Your task to perform on an android device: Play the last video I watched on Youtube Image 0: 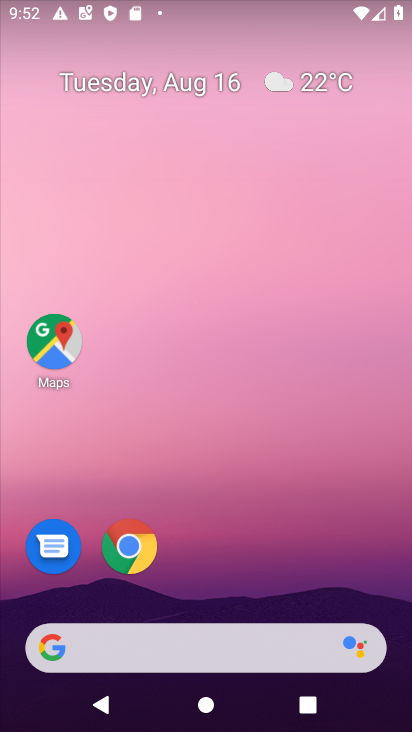
Step 0: drag from (228, 574) to (342, 0)
Your task to perform on an android device: Play the last video I watched on Youtube Image 1: 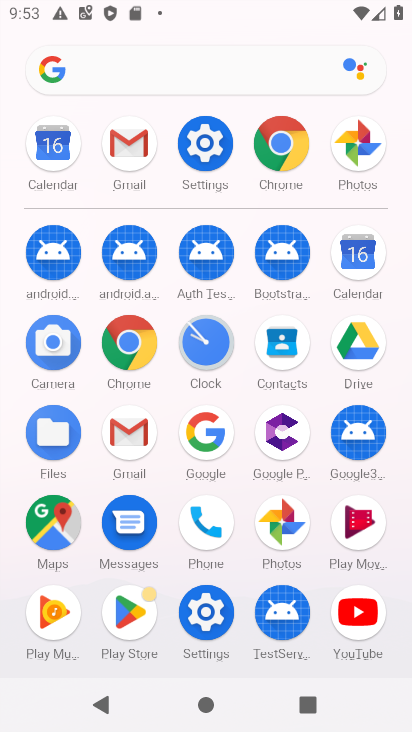
Step 1: click (359, 611)
Your task to perform on an android device: Play the last video I watched on Youtube Image 2: 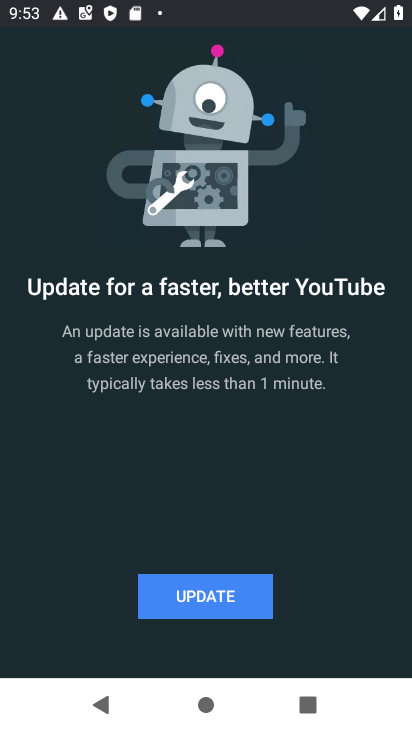
Step 2: click (253, 606)
Your task to perform on an android device: Play the last video I watched on Youtube Image 3: 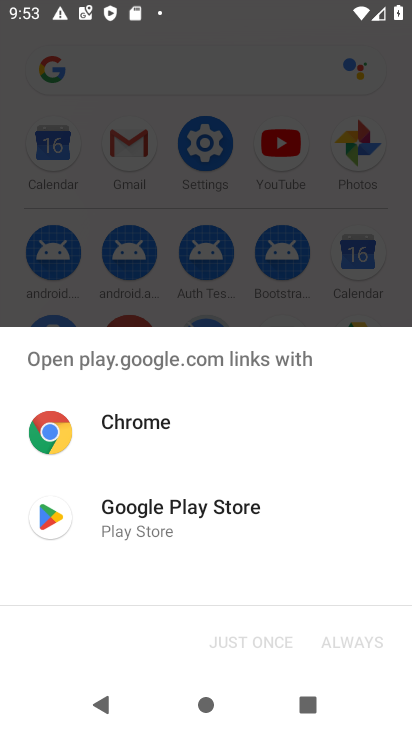
Step 3: click (188, 518)
Your task to perform on an android device: Play the last video I watched on Youtube Image 4: 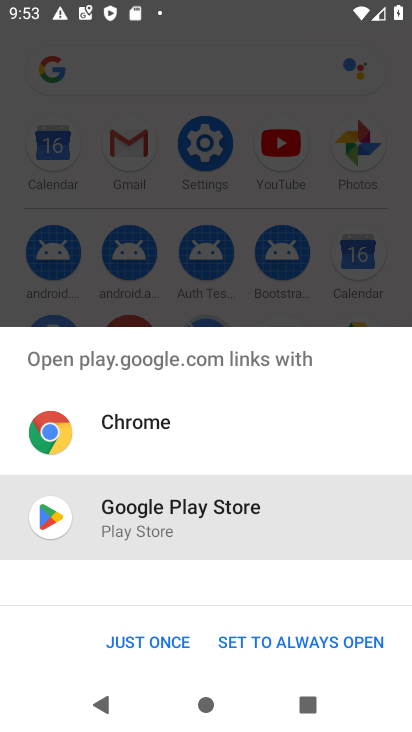
Step 4: click (157, 638)
Your task to perform on an android device: Play the last video I watched on Youtube Image 5: 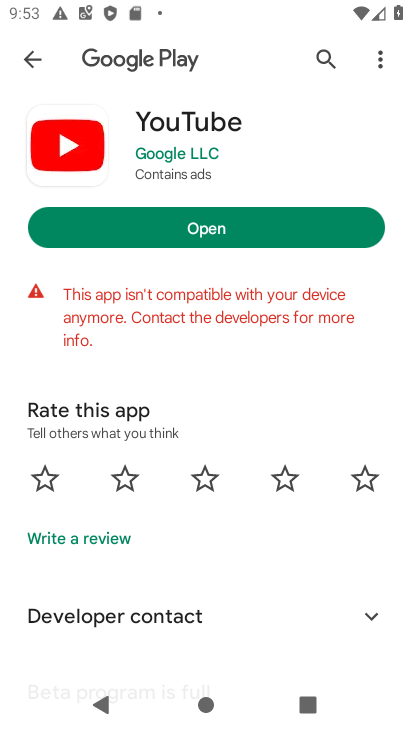
Step 5: click (242, 231)
Your task to perform on an android device: Play the last video I watched on Youtube Image 6: 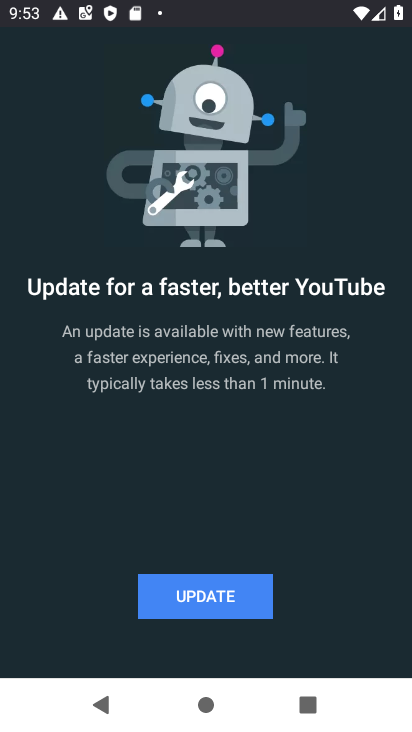
Step 6: click (205, 597)
Your task to perform on an android device: Play the last video I watched on Youtube Image 7: 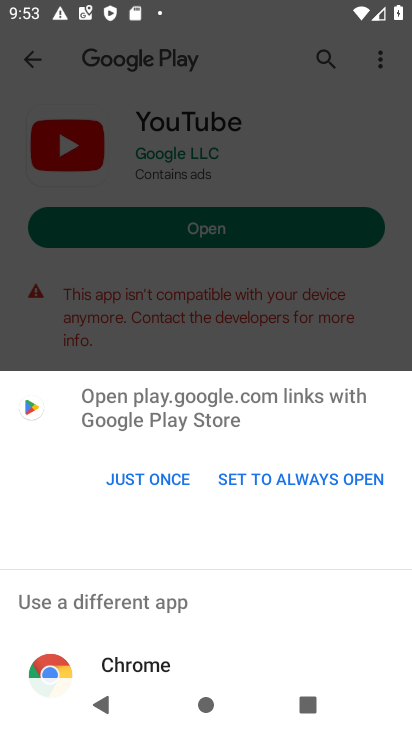
Step 7: click (169, 477)
Your task to perform on an android device: Play the last video I watched on Youtube Image 8: 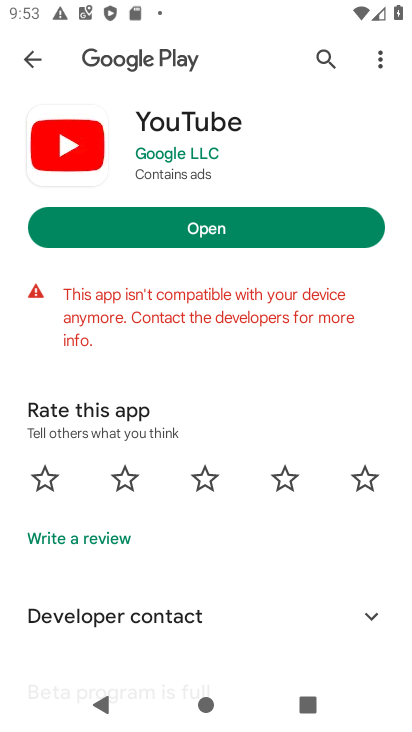
Step 8: task complete